Your task to perform on an android device: Go to eBay Image 0: 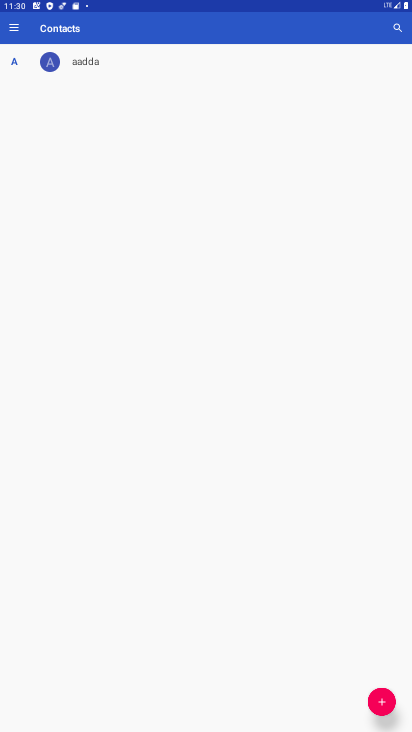
Step 0: press home button
Your task to perform on an android device: Go to eBay Image 1: 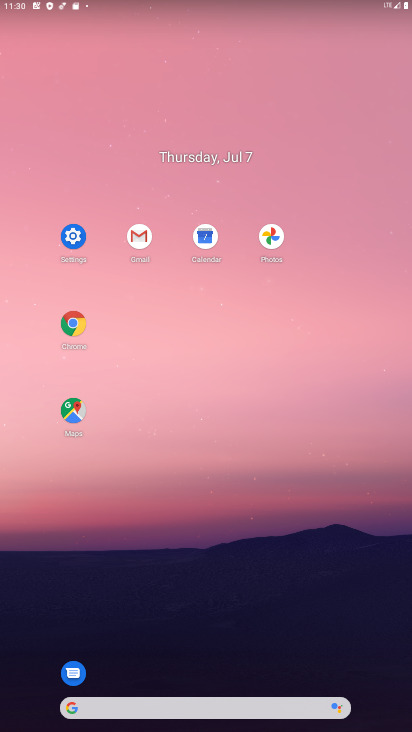
Step 1: click (78, 329)
Your task to perform on an android device: Go to eBay Image 2: 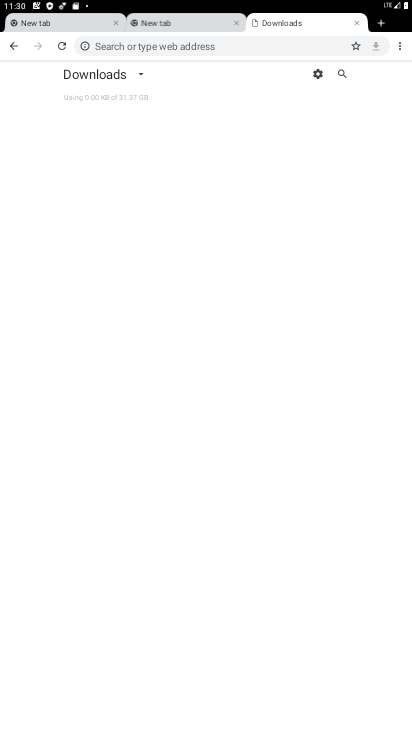
Step 2: click (377, 30)
Your task to perform on an android device: Go to eBay Image 3: 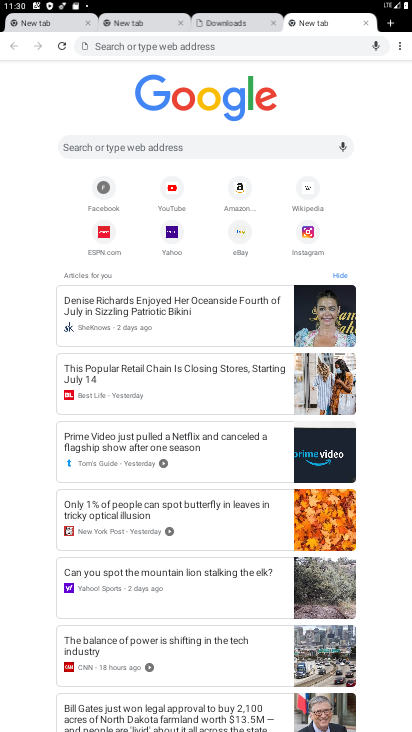
Step 3: click (238, 227)
Your task to perform on an android device: Go to eBay Image 4: 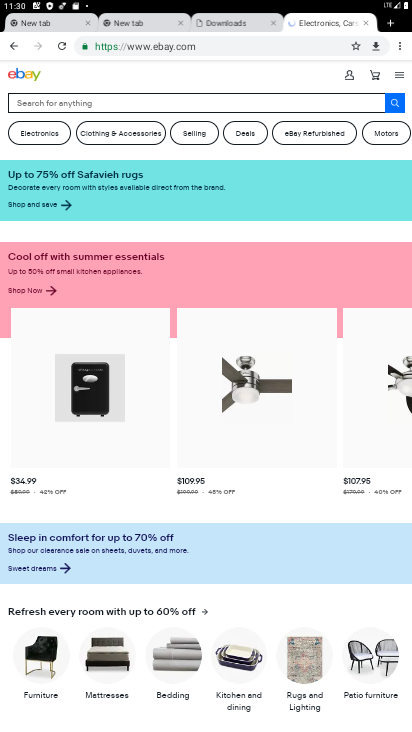
Step 4: task complete